Your task to perform on an android device: Open accessibility settings Image 0: 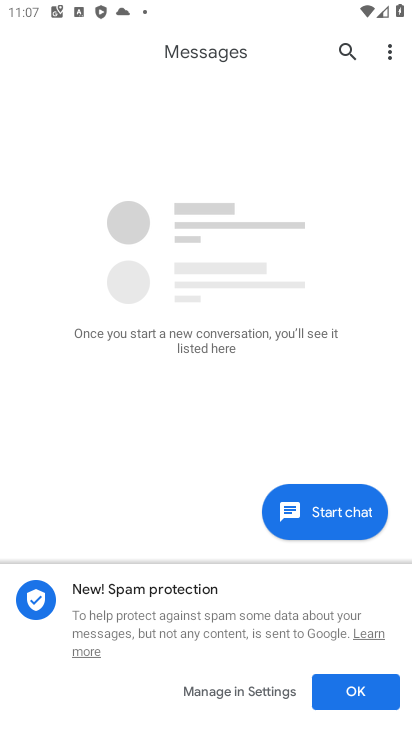
Step 0: press home button
Your task to perform on an android device: Open accessibility settings Image 1: 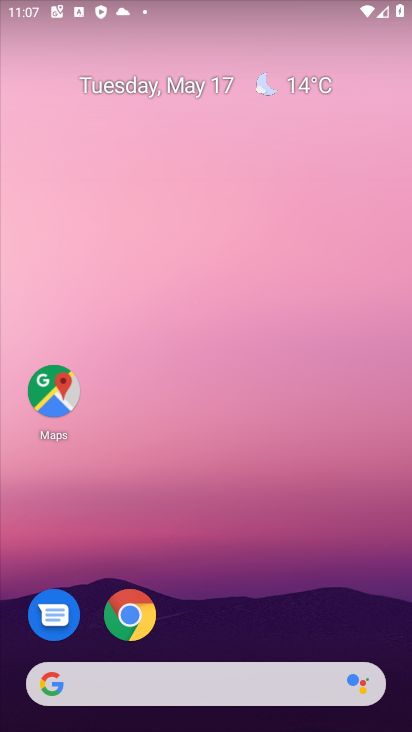
Step 1: drag from (343, 618) to (258, 106)
Your task to perform on an android device: Open accessibility settings Image 2: 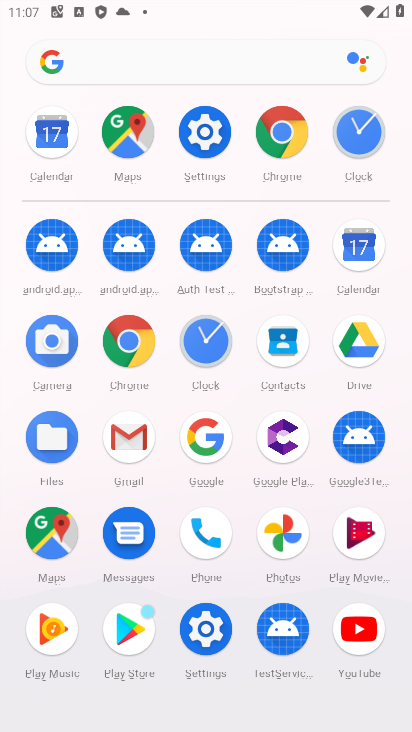
Step 2: click (205, 631)
Your task to perform on an android device: Open accessibility settings Image 3: 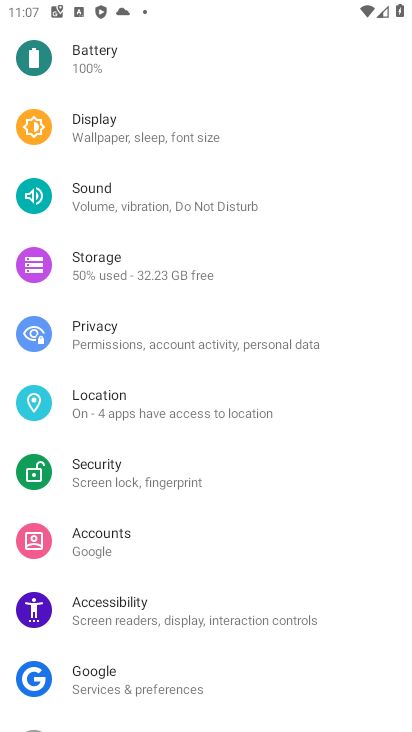
Step 3: click (126, 603)
Your task to perform on an android device: Open accessibility settings Image 4: 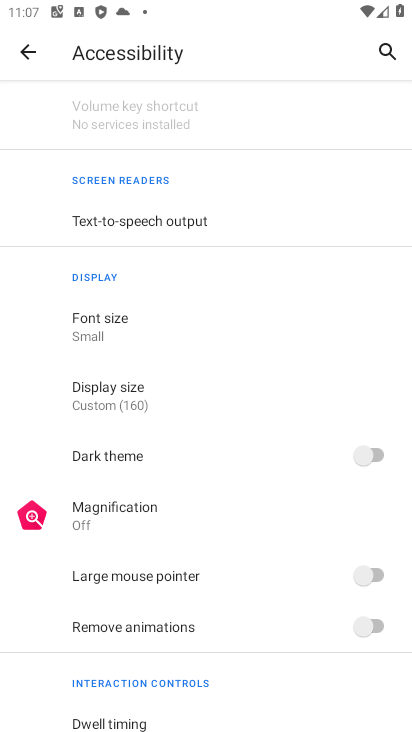
Step 4: task complete